Your task to perform on an android device: allow cookies in the chrome app Image 0: 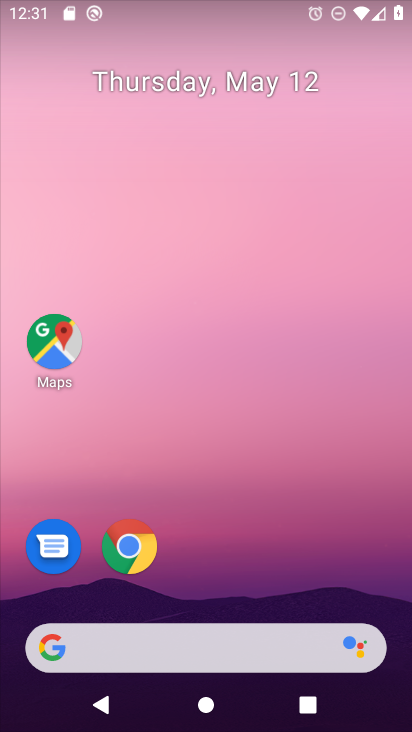
Step 0: drag from (390, 643) to (245, 55)
Your task to perform on an android device: allow cookies in the chrome app Image 1: 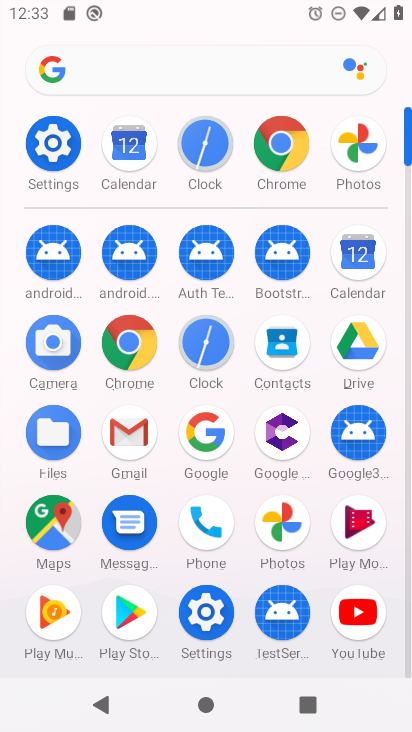
Step 1: click (123, 369)
Your task to perform on an android device: allow cookies in the chrome app Image 2: 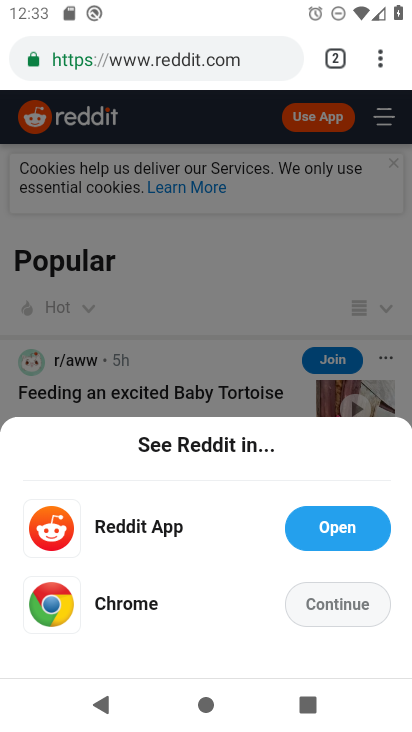
Step 2: press back button
Your task to perform on an android device: allow cookies in the chrome app Image 3: 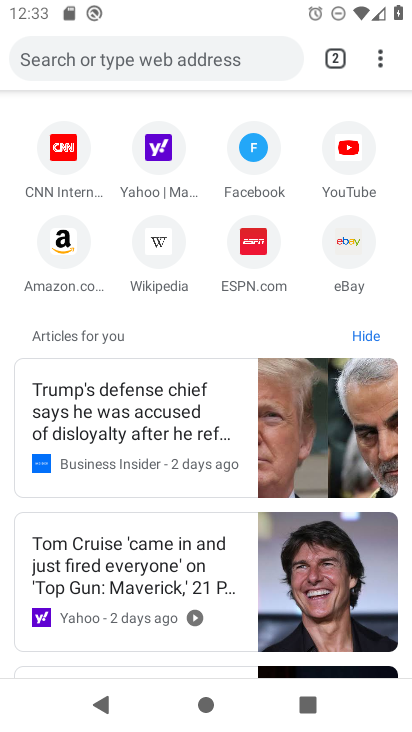
Step 3: click (378, 57)
Your task to perform on an android device: allow cookies in the chrome app Image 4: 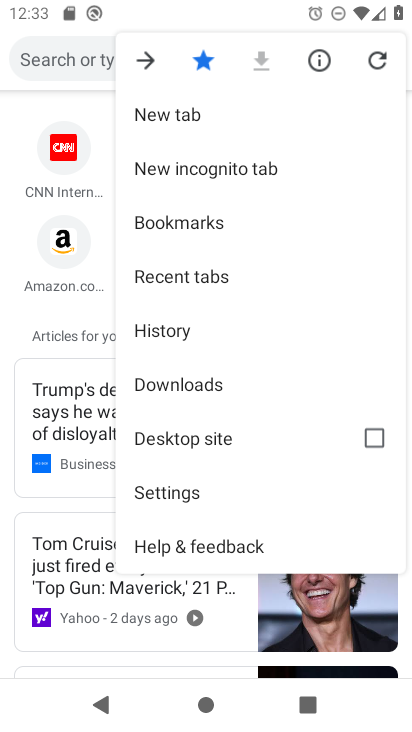
Step 4: click (204, 506)
Your task to perform on an android device: allow cookies in the chrome app Image 5: 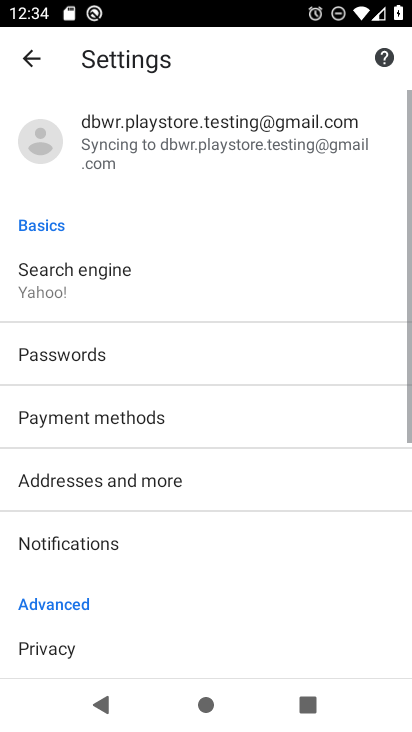
Step 5: press back button
Your task to perform on an android device: allow cookies in the chrome app Image 6: 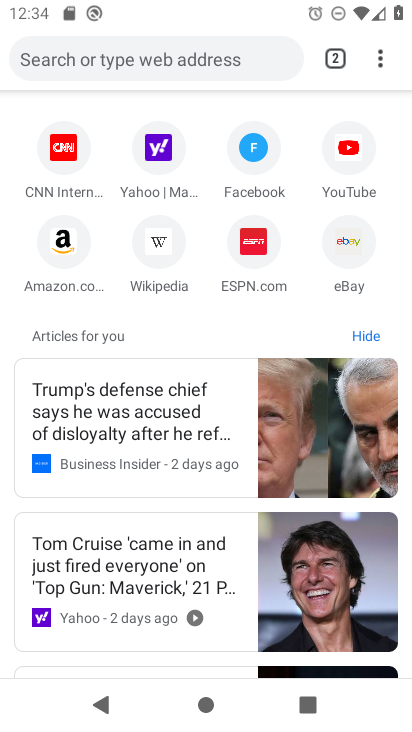
Step 6: click (382, 60)
Your task to perform on an android device: allow cookies in the chrome app Image 7: 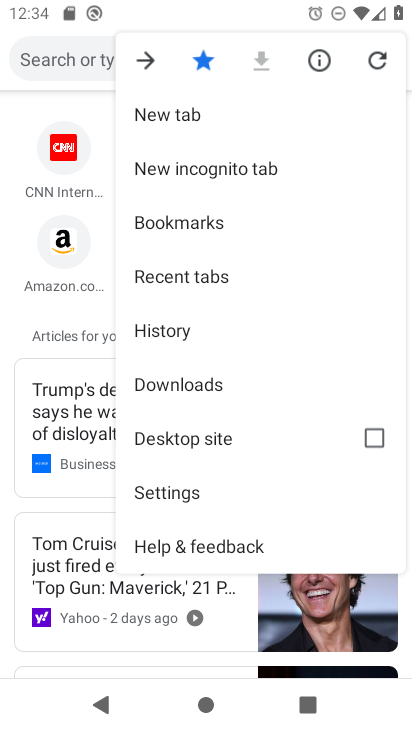
Step 7: click (191, 338)
Your task to perform on an android device: allow cookies in the chrome app Image 8: 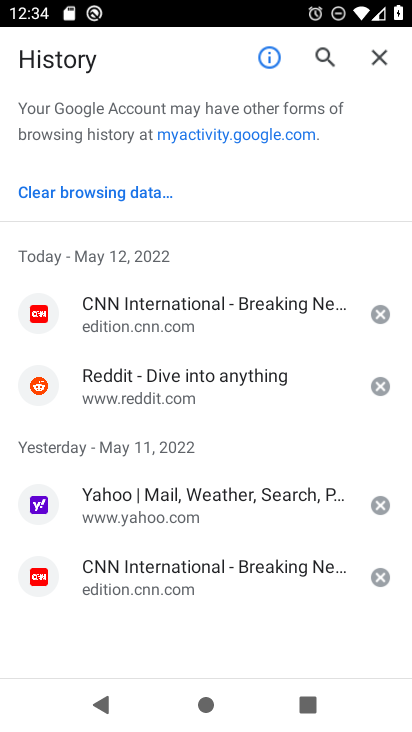
Step 8: click (120, 195)
Your task to perform on an android device: allow cookies in the chrome app Image 9: 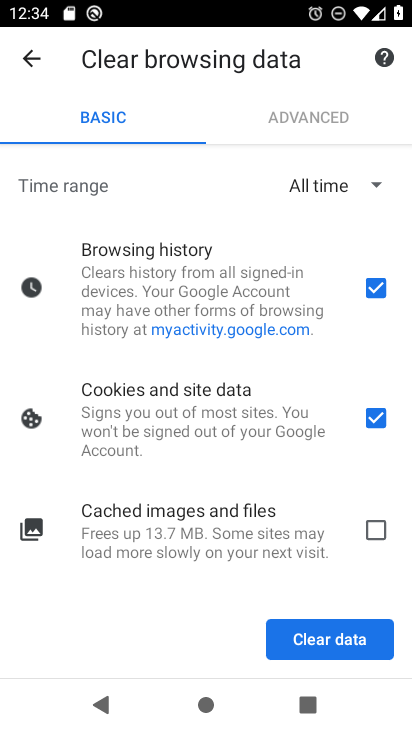
Step 9: task complete